Your task to perform on an android device: add a contact Image 0: 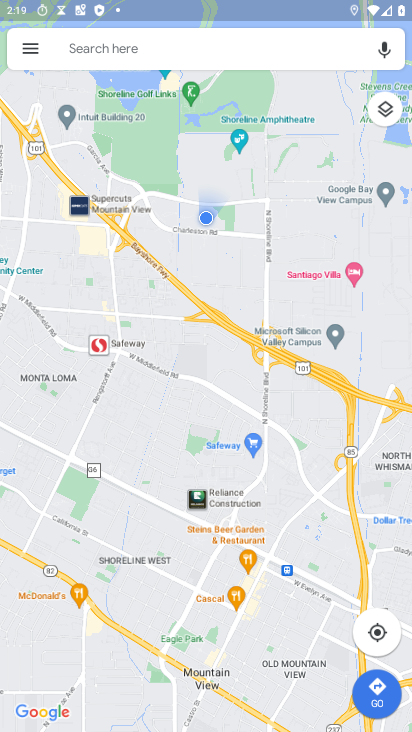
Step 0: press home button
Your task to perform on an android device: add a contact Image 1: 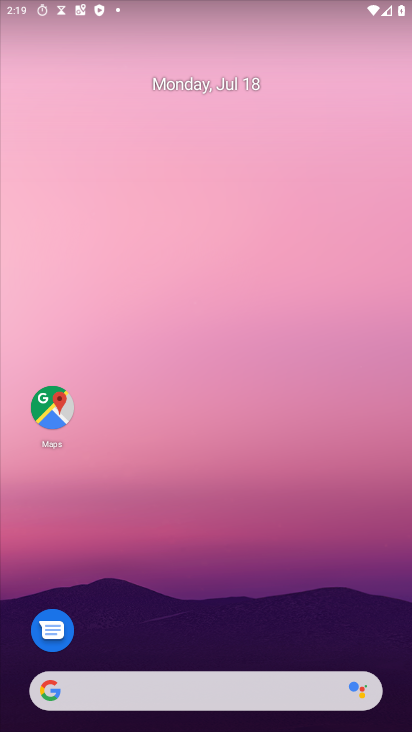
Step 1: drag from (292, 682) to (348, 4)
Your task to perform on an android device: add a contact Image 2: 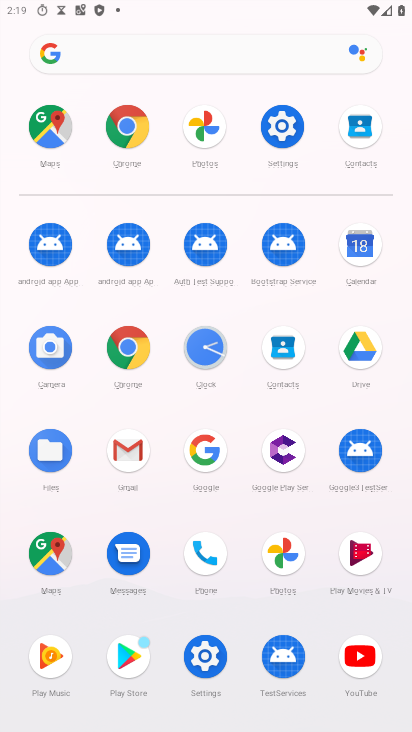
Step 2: click (286, 351)
Your task to perform on an android device: add a contact Image 3: 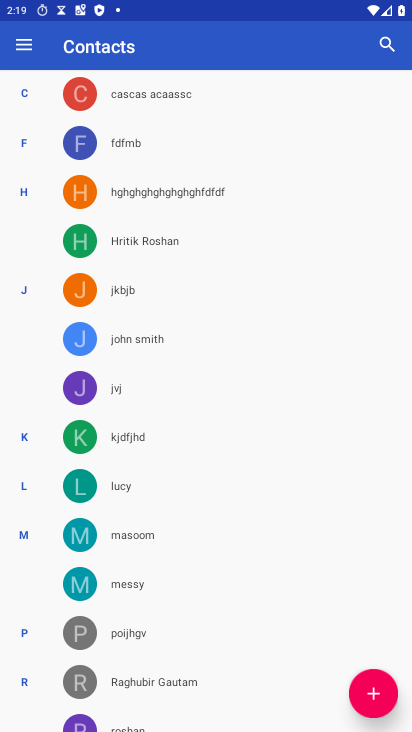
Step 3: click (382, 680)
Your task to perform on an android device: add a contact Image 4: 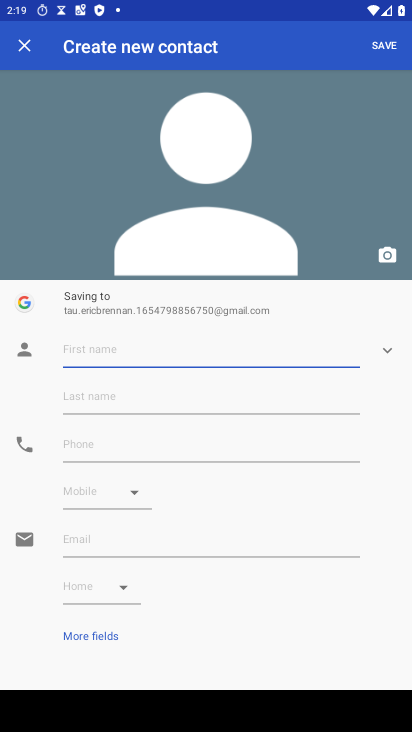
Step 4: type "sandeep"
Your task to perform on an android device: add a contact Image 5: 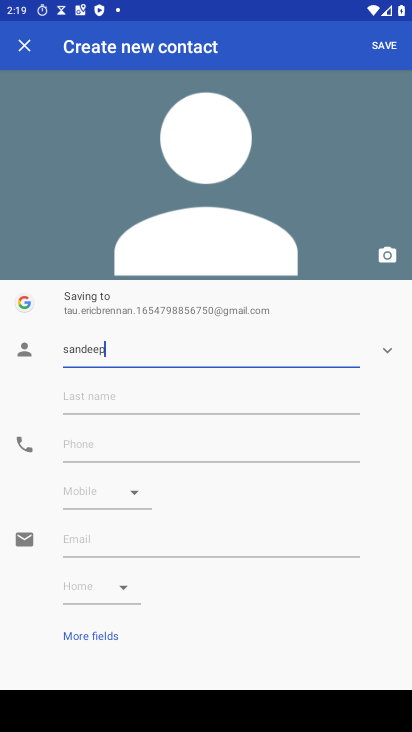
Step 5: click (271, 441)
Your task to perform on an android device: add a contact Image 6: 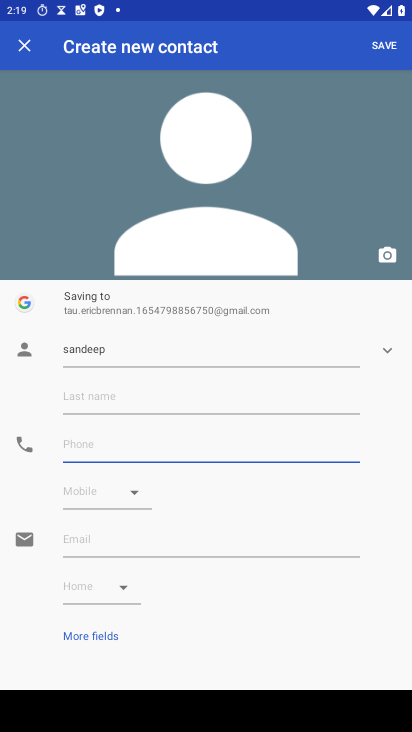
Step 6: type "6789876567"
Your task to perform on an android device: add a contact Image 7: 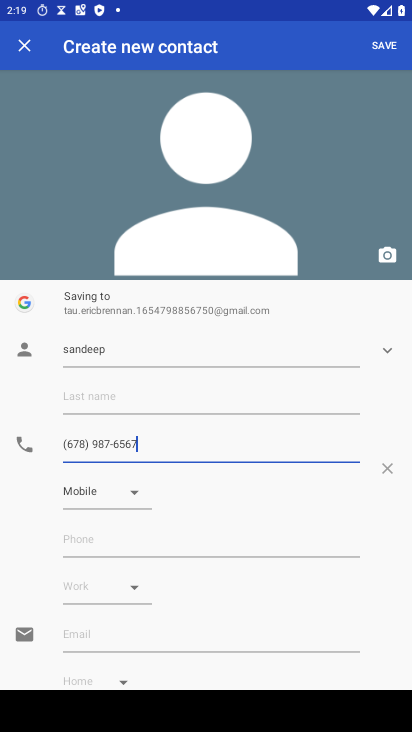
Step 7: click (389, 49)
Your task to perform on an android device: add a contact Image 8: 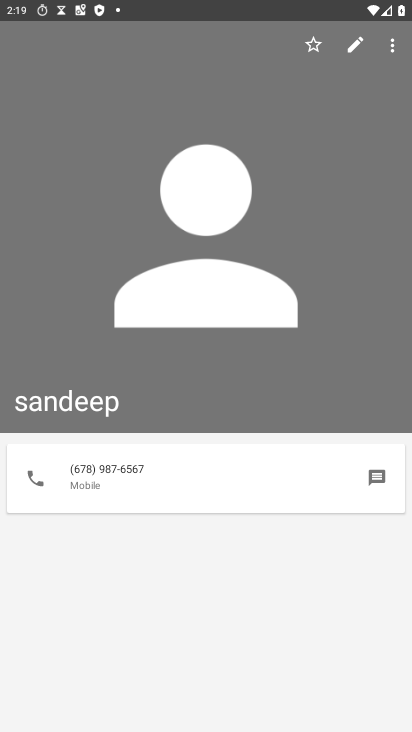
Step 8: task complete